Your task to perform on an android device: turn vacation reply on in the gmail app Image 0: 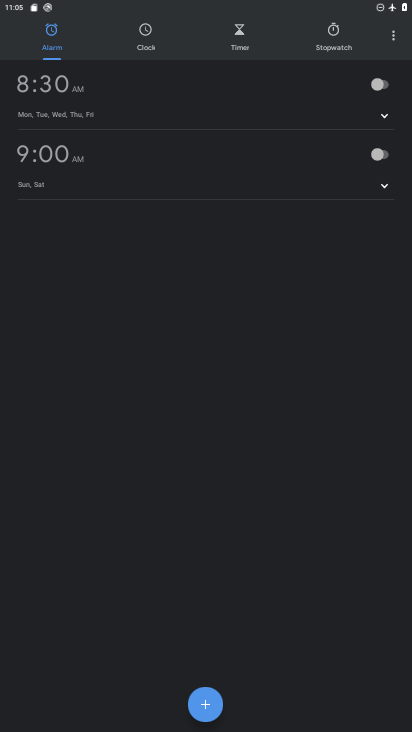
Step 0: press home button
Your task to perform on an android device: turn vacation reply on in the gmail app Image 1: 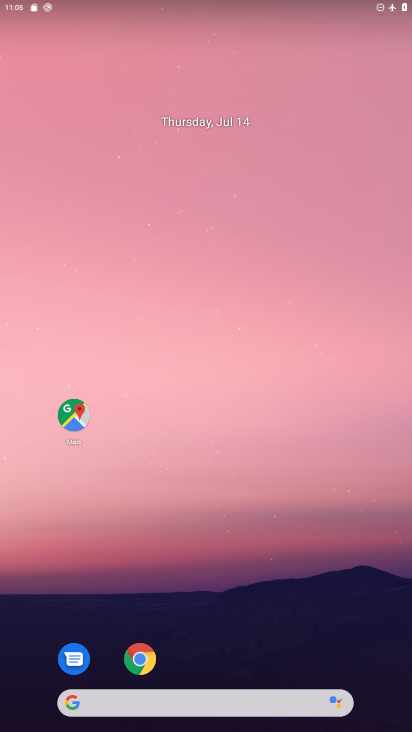
Step 1: drag from (368, 640) to (204, 135)
Your task to perform on an android device: turn vacation reply on in the gmail app Image 2: 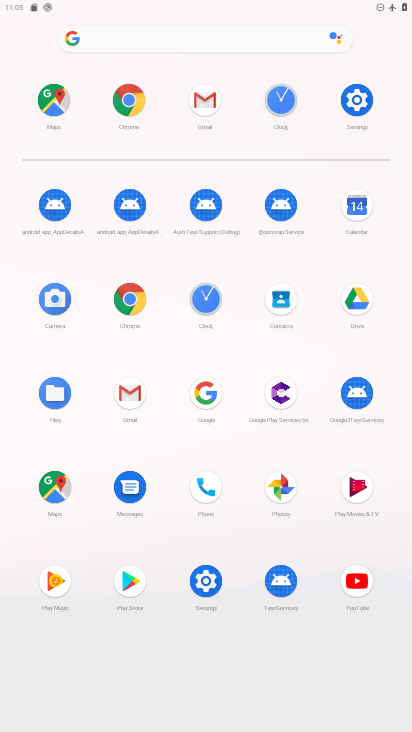
Step 2: click (203, 104)
Your task to perform on an android device: turn vacation reply on in the gmail app Image 3: 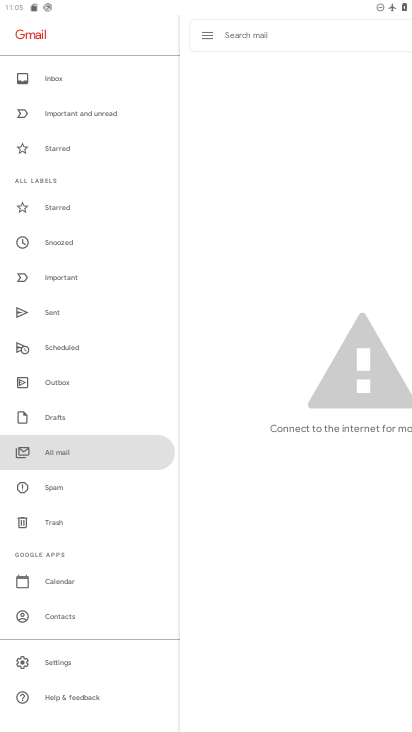
Step 3: click (72, 667)
Your task to perform on an android device: turn vacation reply on in the gmail app Image 4: 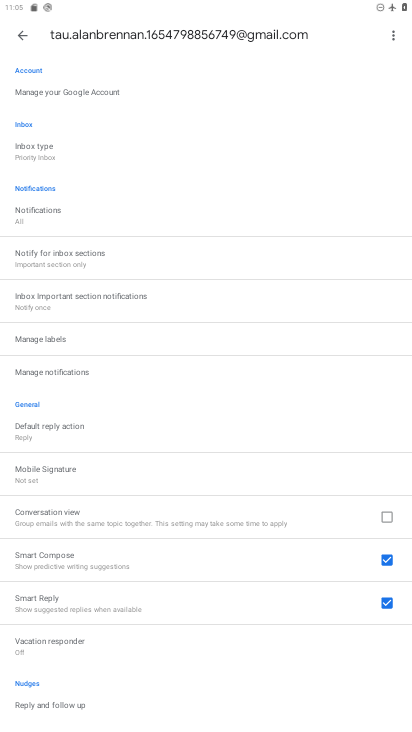
Step 4: click (79, 644)
Your task to perform on an android device: turn vacation reply on in the gmail app Image 5: 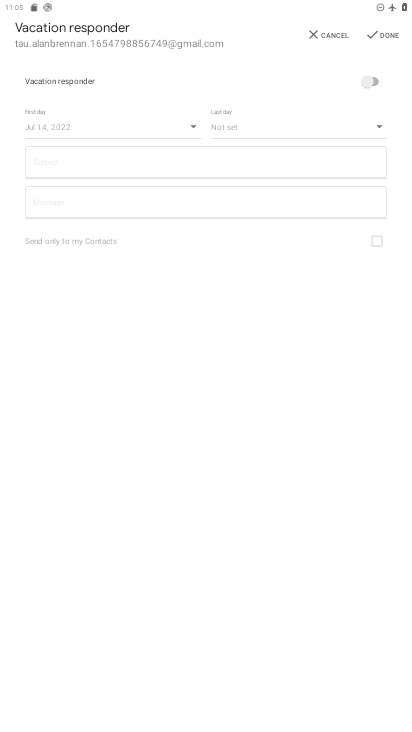
Step 5: click (376, 66)
Your task to perform on an android device: turn vacation reply on in the gmail app Image 6: 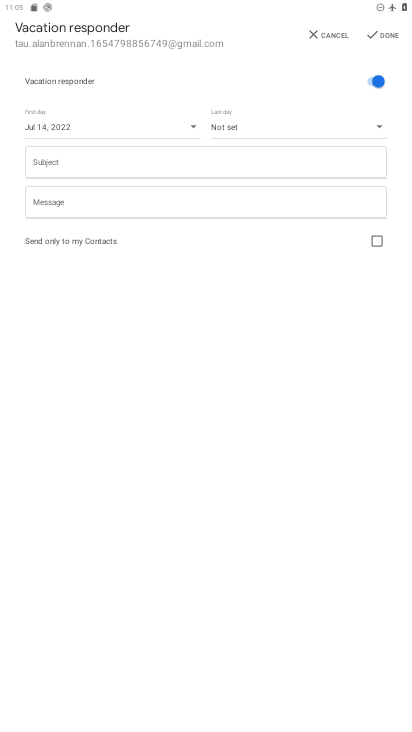
Step 6: task complete